Your task to perform on an android device: turn off data saver in the chrome app Image 0: 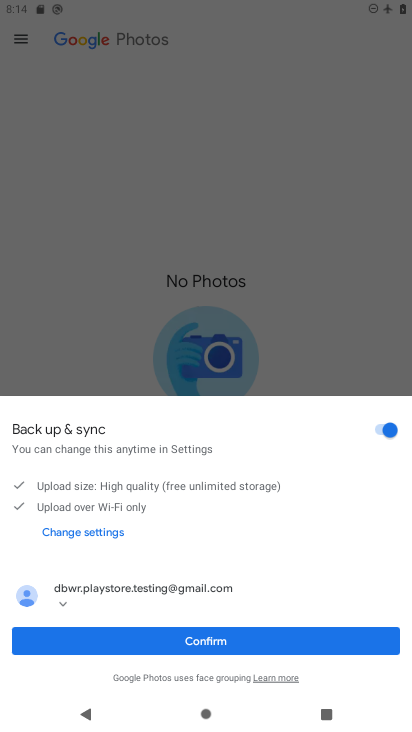
Step 0: press home button
Your task to perform on an android device: turn off data saver in the chrome app Image 1: 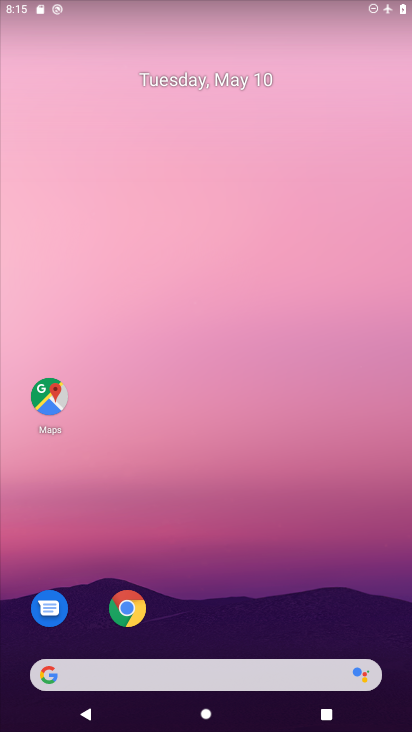
Step 1: drag from (299, 609) to (290, 177)
Your task to perform on an android device: turn off data saver in the chrome app Image 2: 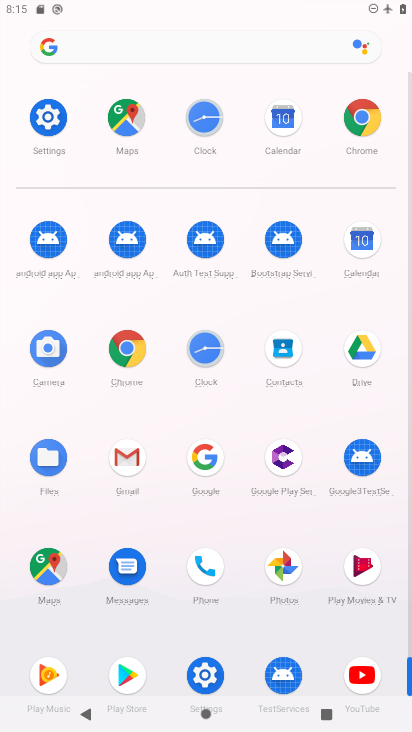
Step 2: click (131, 343)
Your task to perform on an android device: turn off data saver in the chrome app Image 3: 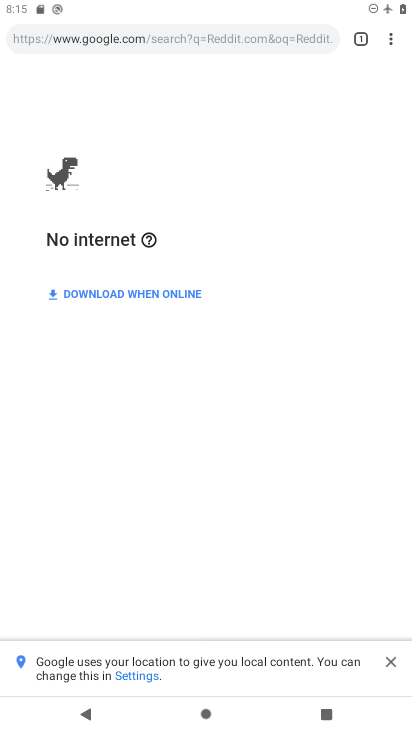
Step 3: click (382, 38)
Your task to perform on an android device: turn off data saver in the chrome app Image 4: 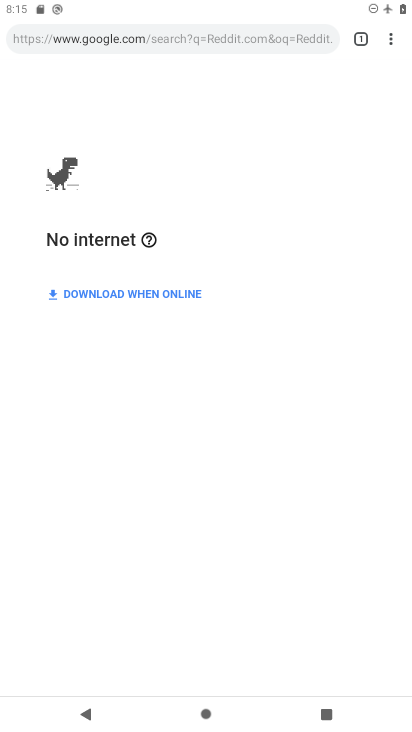
Step 4: click (382, 38)
Your task to perform on an android device: turn off data saver in the chrome app Image 5: 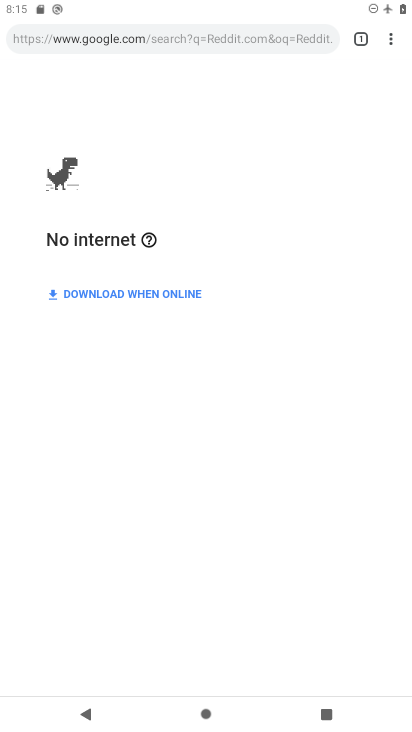
Step 5: click (371, 33)
Your task to perform on an android device: turn off data saver in the chrome app Image 6: 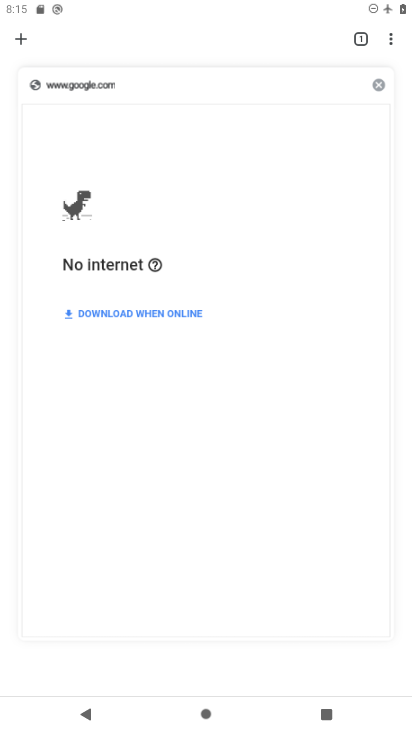
Step 6: click (374, 35)
Your task to perform on an android device: turn off data saver in the chrome app Image 7: 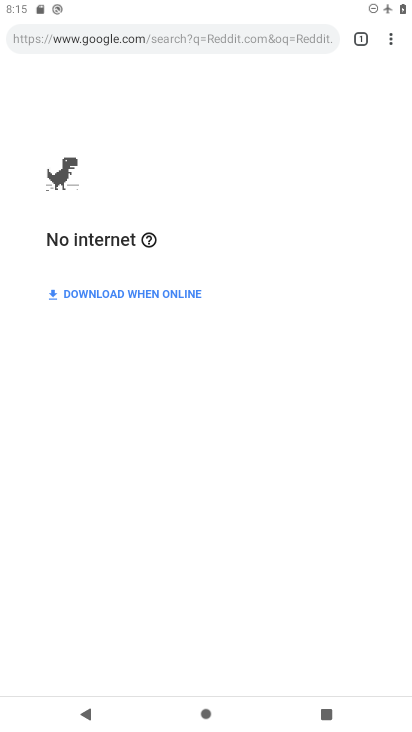
Step 7: click (374, 41)
Your task to perform on an android device: turn off data saver in the chrome app Image 8: 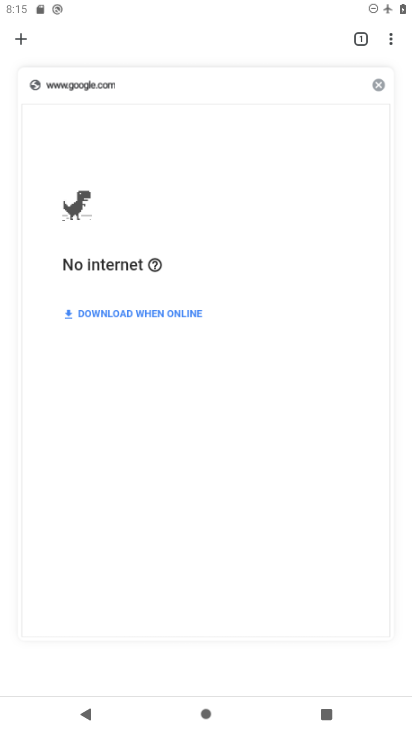
Step 8: click (378, 37)
Your task to perform on an android device: turn off data saver in the chrome app Image 9: 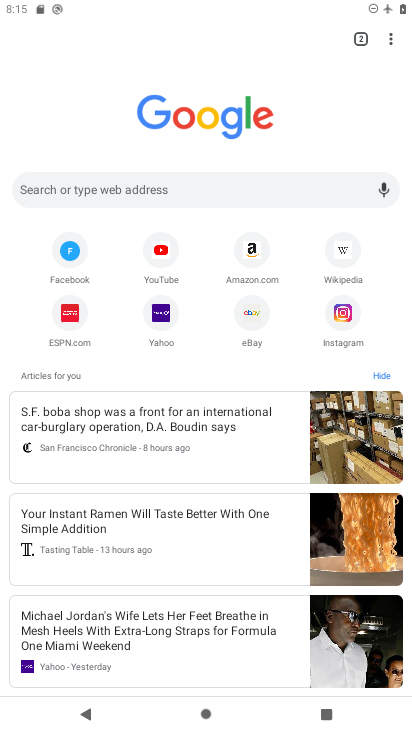
Step 9: click (382, 33)
Your task to perform on an android device: turn off data saver in the chrome app Image 10: 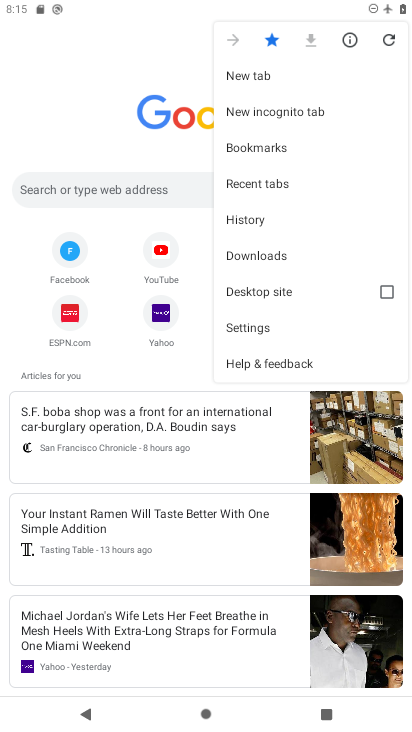
Step 10: click (261, 323)
Your task to perform on an android device: turn off data saver in the chrome app Image 11: 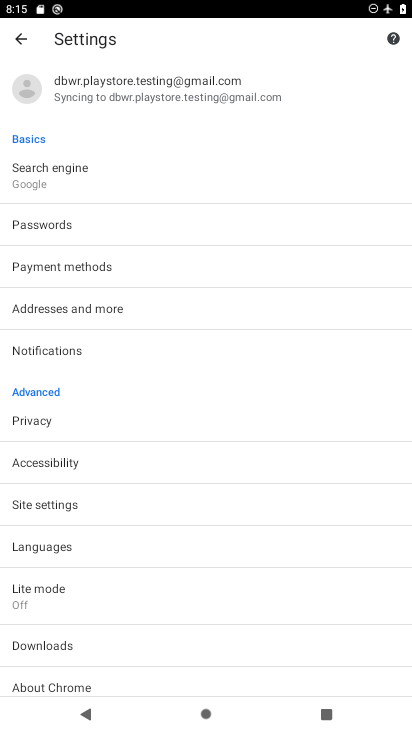
Step 11: click (67, 600)
Your task to perform on an android device: turn off data saver in the chrome app Image 12: 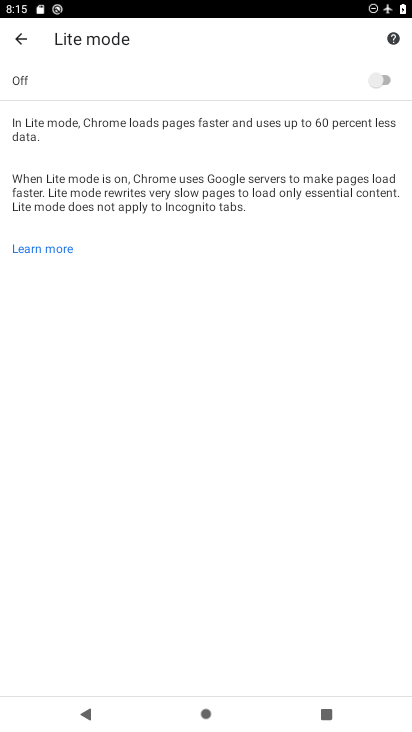
Step 12: task complete